Your task to perform on an android device: Play the last video I watched on Youtube Image 0: 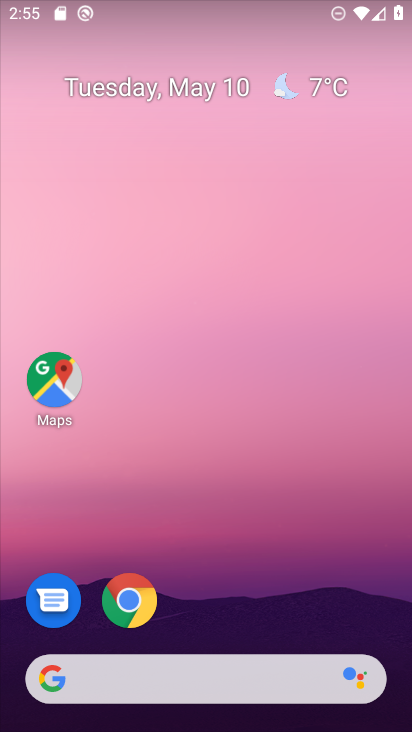
Step 0: drag from (181, 692) to (240, 0)
Your task to perform on an android device: Play the last video I watched on Youtube Image 1: 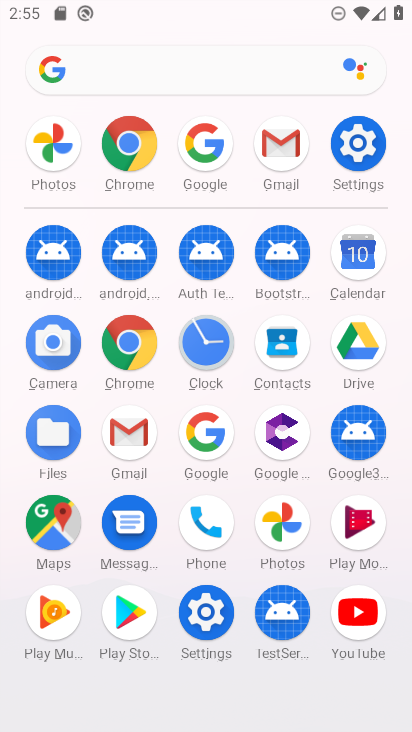
Step 1: click (341, 624)
Your task to perform on an android device: Play the last video I watched on Youtube Image 2: 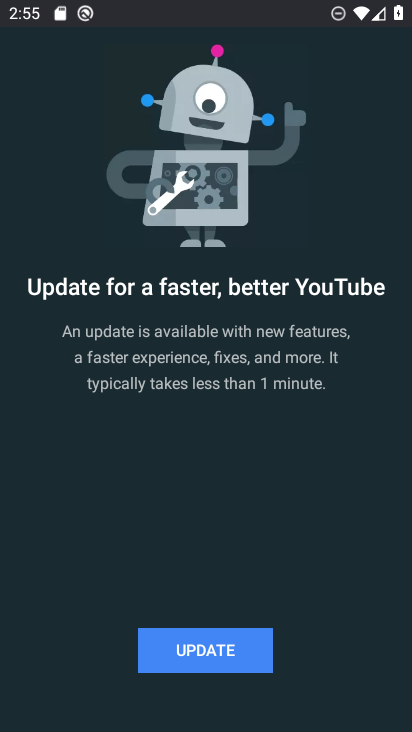
Step 2: click (219, 648)
Your task to perform on an android device: Play the last video I watched on Youtube Image 3: 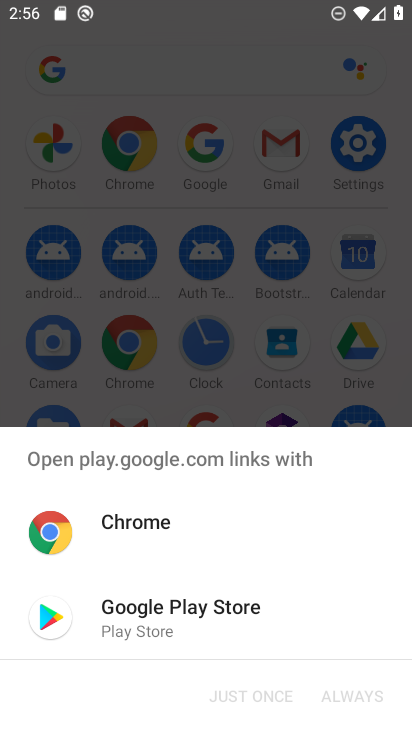
Step 3: click (251, 628)
Your task to perform on an android device: Play the last video I watched on Youtube Image 4: 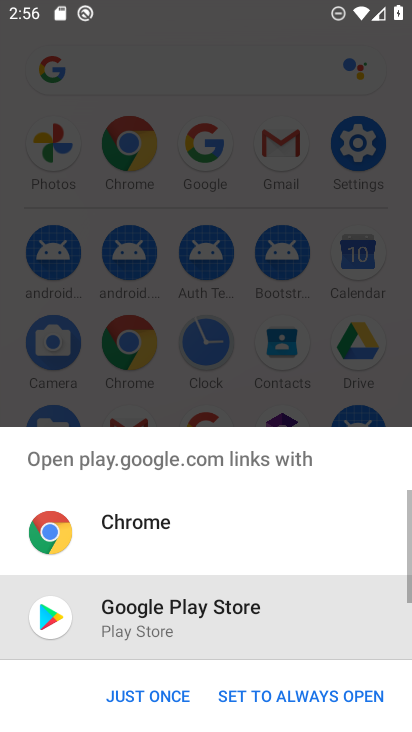
Step 4: drag from (219, 694) to (64, 717)
Your task to perform on an android device: Play the last video I watched on Youtube Image 5: 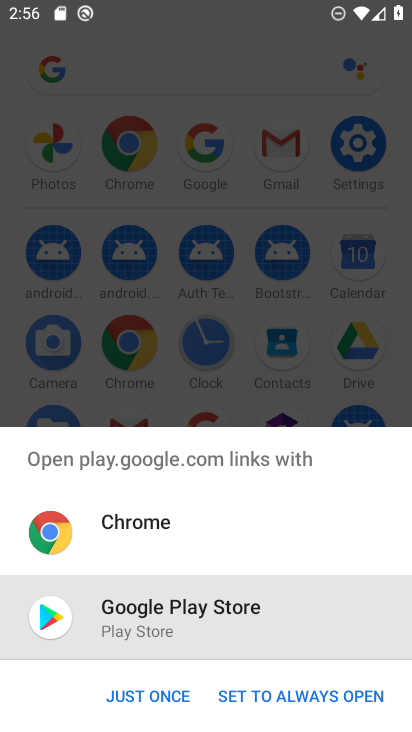
Step 5: click (106, 699)
Your task to perform on an android device: Play the last video I watched on Youtube Image 6: 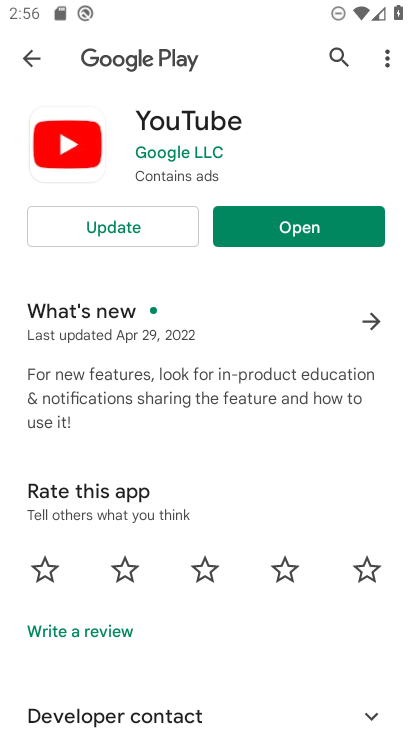
Step 6: click (291, 227)
Your task to perform on an android device: Play the last video I watched on Youtube Image 7: 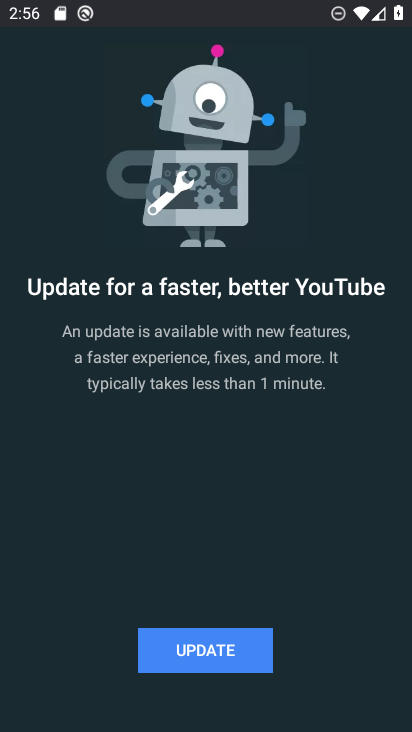
Step 7: click (202, 650)
Your task to perform on an android device: Play the last video I watched on Youtube Image 8: 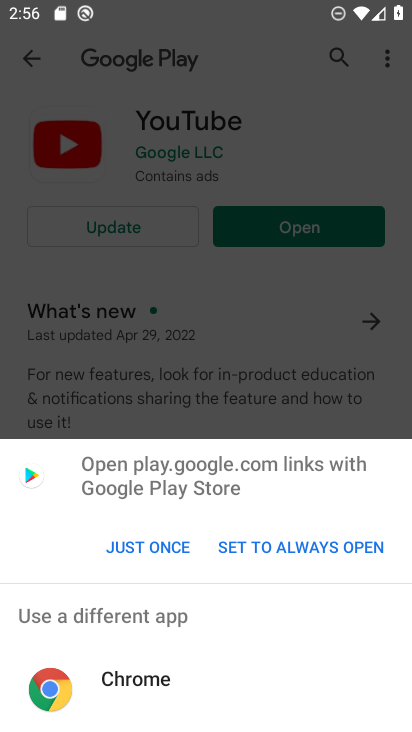
Step 8: click (136, 548)
Your task to perform on an android device: Play the last video I watched on Youtube Image 9: 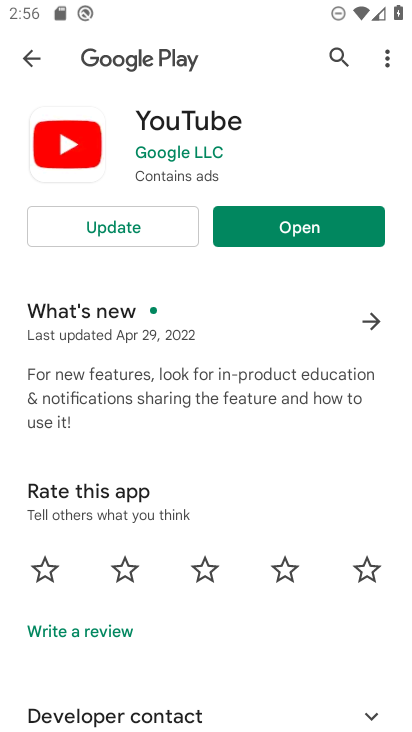
Step 9: click (147, 238)
Your task to perform on an android device: Play the last video I watched on Youtube Image 10: 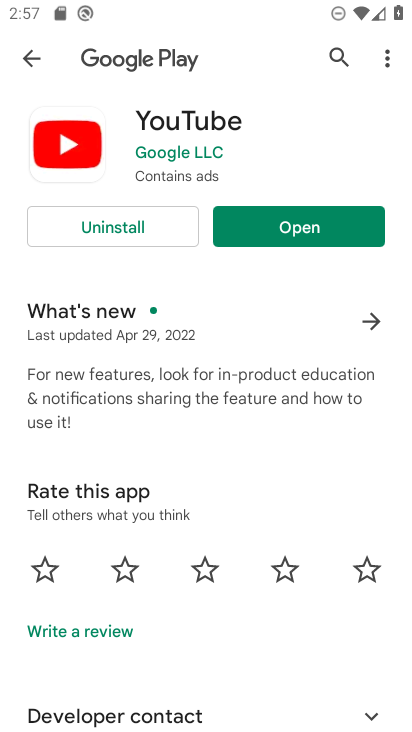
Step 10: click (319, 229)
Your task to perform on an android device: Play the last video I watched on Youtube Image 11: 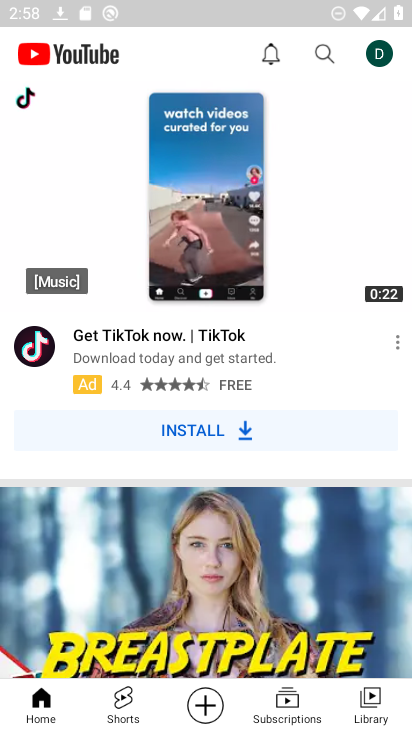
Step 11: click (372, 700)
Your task to perform on an android device: Play the last video I watched on Youtube Image 12: 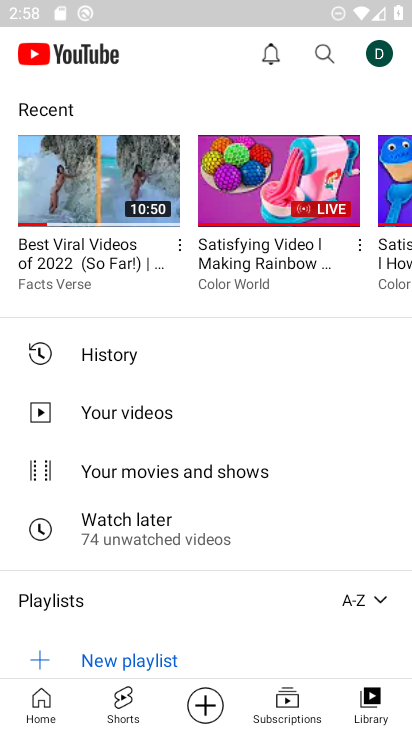
Step 12: click (131, 364)
Your task to perform on an android device: Play the last video I watched on Youtube Image 13: 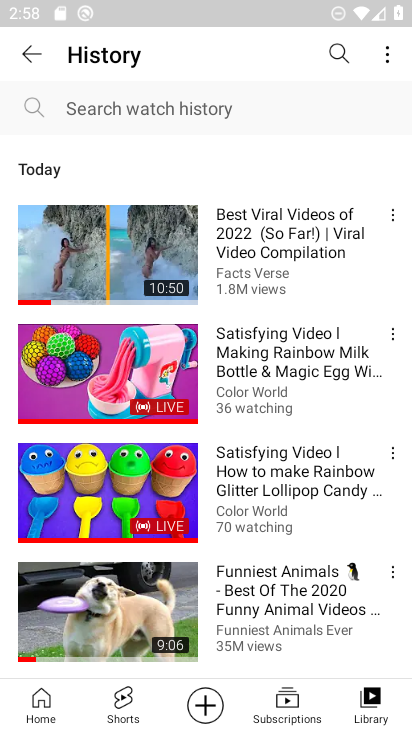
Step 13: click (217, 248)
Your task to perform on an android device: Play the last video I watched on Youtube Image 14: 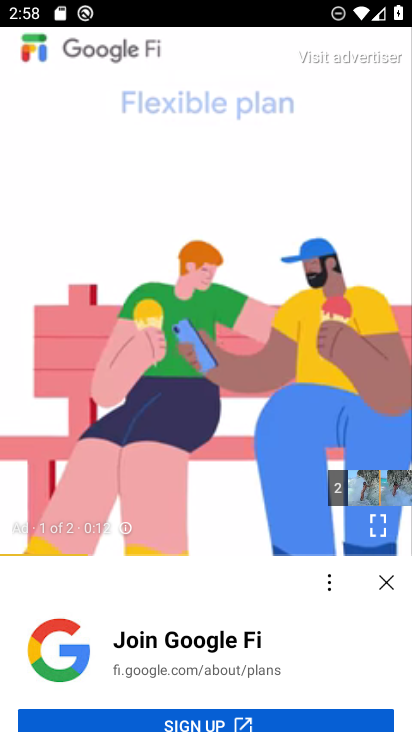
Step 14: task complete